Your task to perform on an android device: Search for vegetarian restaurants on Maps Image 0: 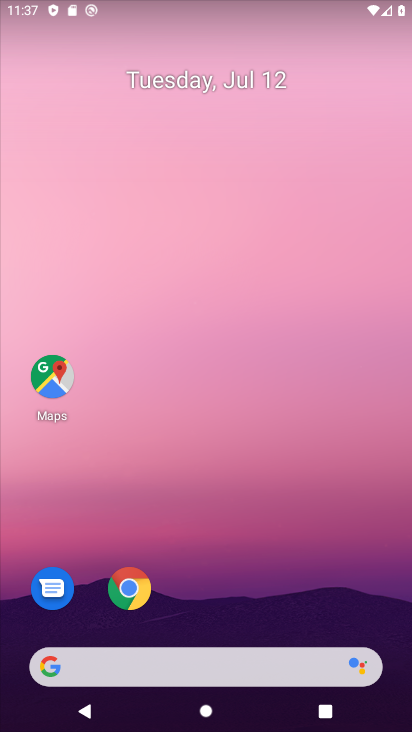
Step 0: click (53, 384)
Your task to perform on an android device: Search for vegetarian restaurants on Maps Image 1: 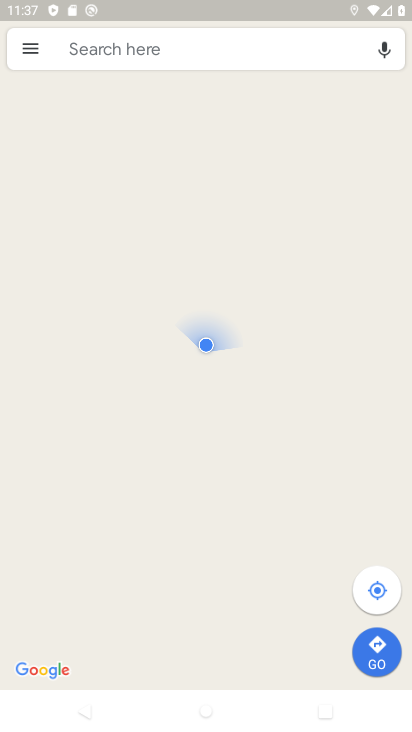
Step 1: click (121, 51)
Your task to perform on an android device: Search for vegetarian restaurants on Maps Image 2: 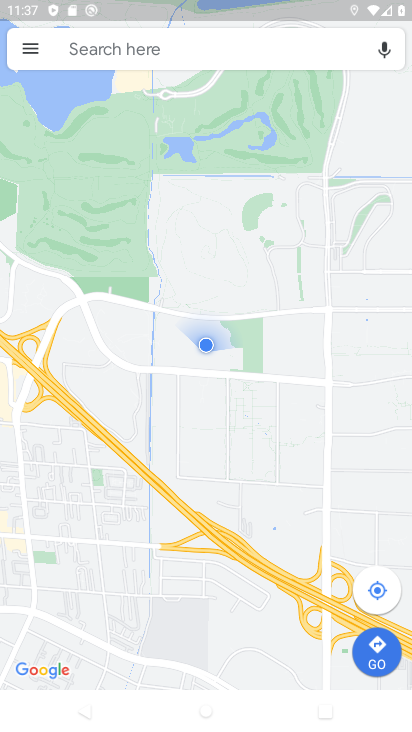
Step 2: click (97, 48)
Your task to perform on an android device: Search for vegetarian restaurants on Maps Image 3: 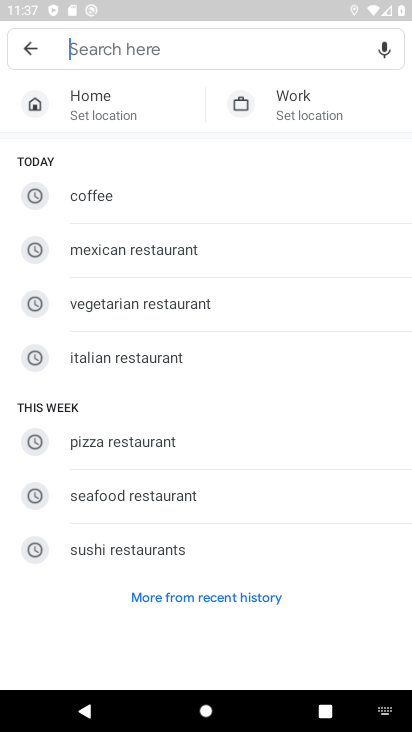
Step 3: type "vegetarian restaurants"
Your task to perform on an android device: Search for vegetarian restaurants on Maps Image 4: 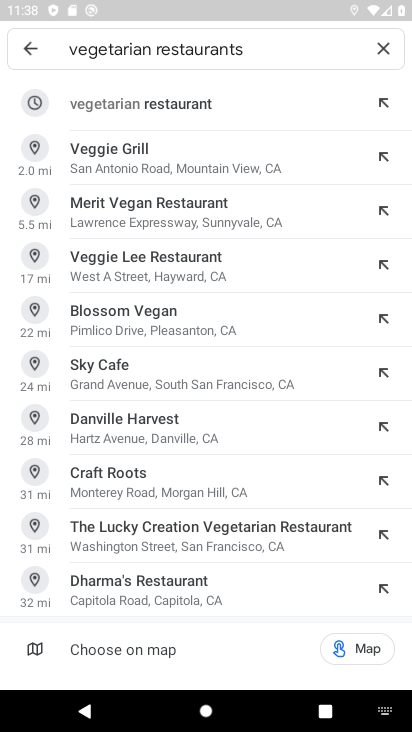
Step 4: click (160, 102)
Your task to perform on an android device: Search for vegetarian restaurants on Maps Image 5: 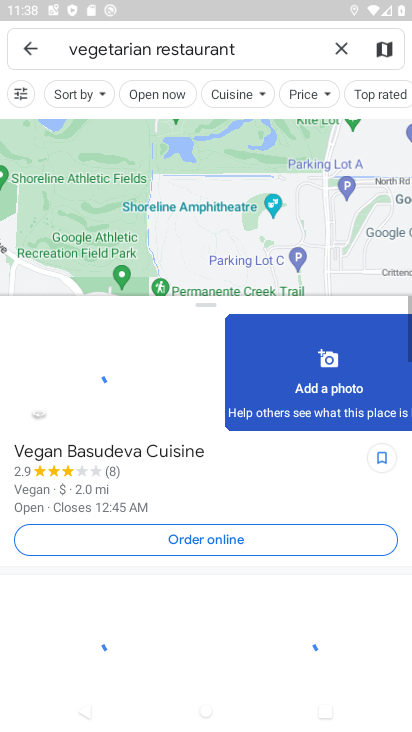
Step 5: task complete